Your task to perform on an android device: Is it going to rain tomorrow? Image 0: 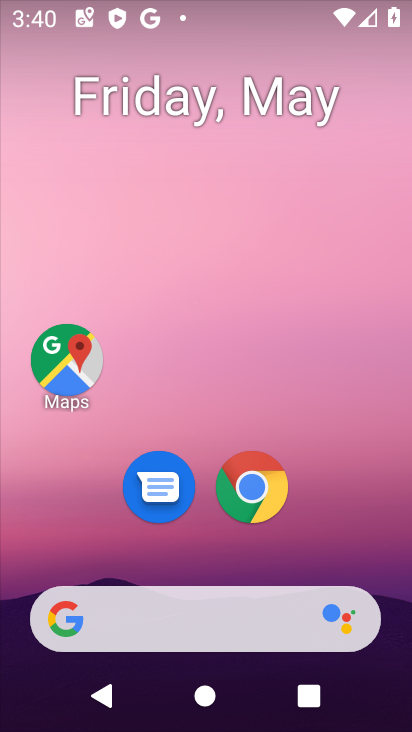
Step 0: drag from (383, 640) to (353, 21)
Your task to perform on an android device: Is it going to rain tomorrow? Image 1: 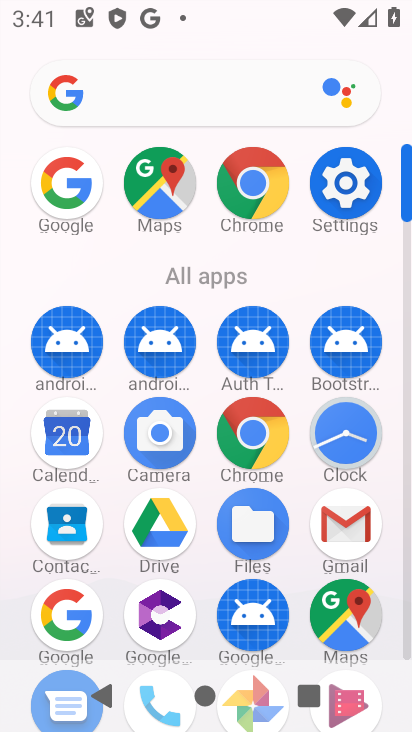
Step 1: click (53, 209)
Your task to perform on an android device: Is it going to rain tomorrow? Image 2: 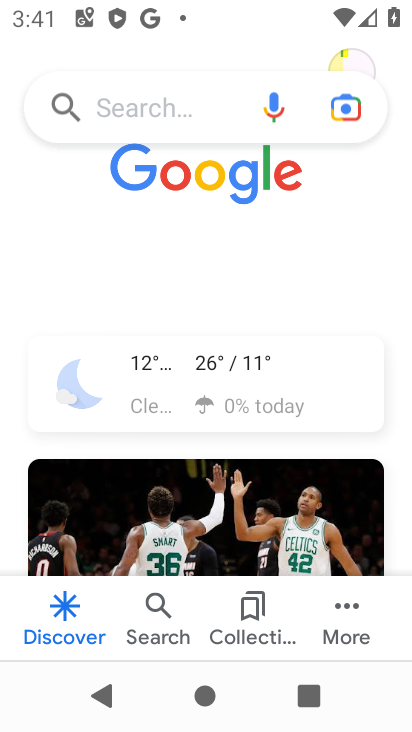
Step 2: click (177, 89)
Your task to perform on an android device: Is it going to rain tomorrow? Image 3: 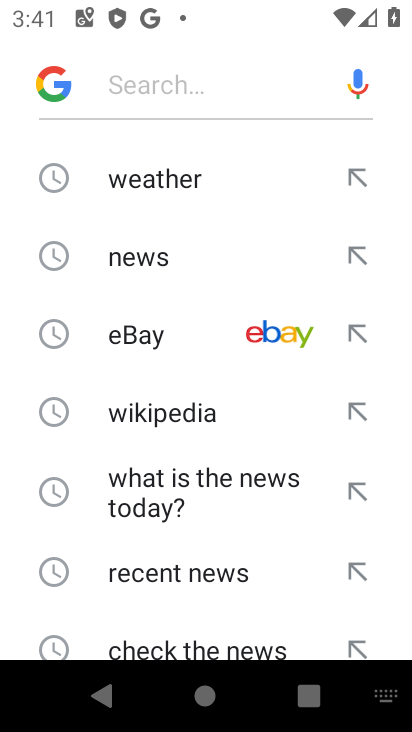
Step 3: drag from (200, 539) to (247, 141)
Your task to perform on an android device: Is it going to rain tomorrow? Image 4: 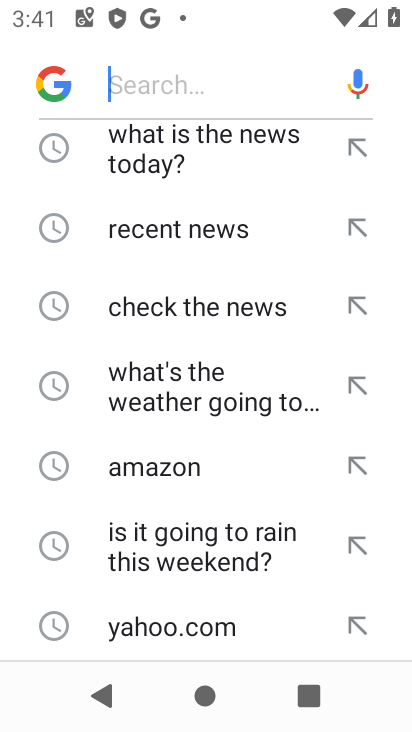
Step 4: drag from (209, 583) to (253, 185)
Your task to perform on an android device: Is it going to rain tomorrow? Image 5: 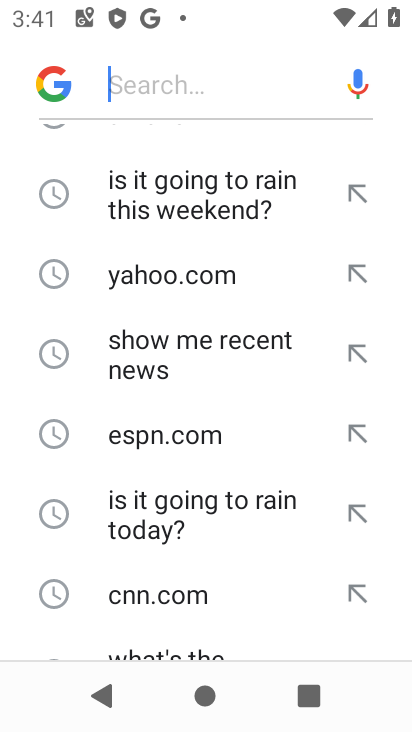
Step 5: drag from (206, 540) to (228, 143)
Your task to perform on an android device: Is it going to rain tomorrow? Image 6: 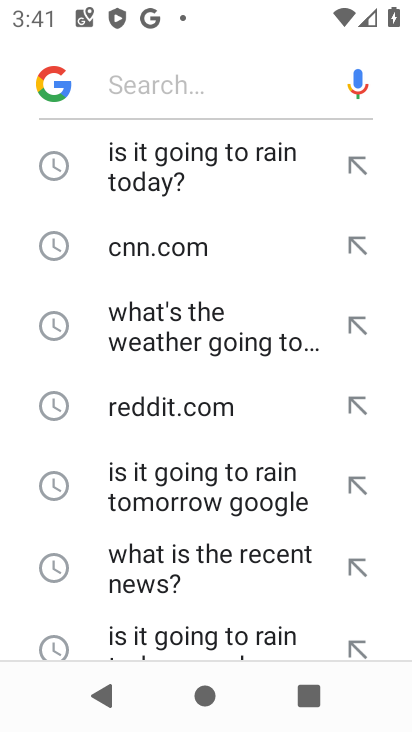
Step 6: drag from (206, 600) to (243, 302)
Your task to perform on an android device: Is it going to rain tomorrow? Image 7: 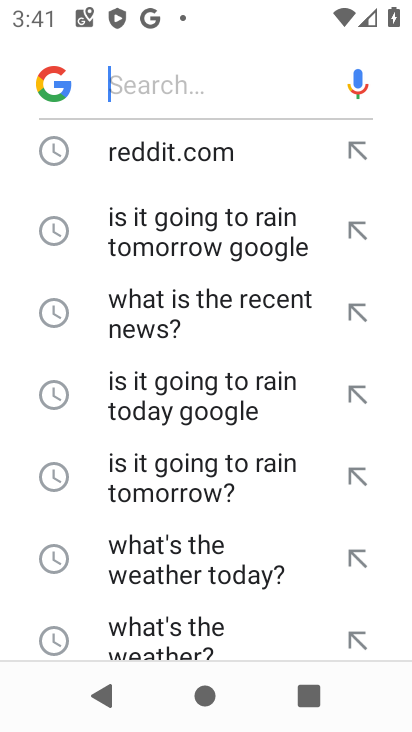
Step 7: click (232, 485)
Your task to perform on an android device: Is it going to rain tomorrow? Image 8: 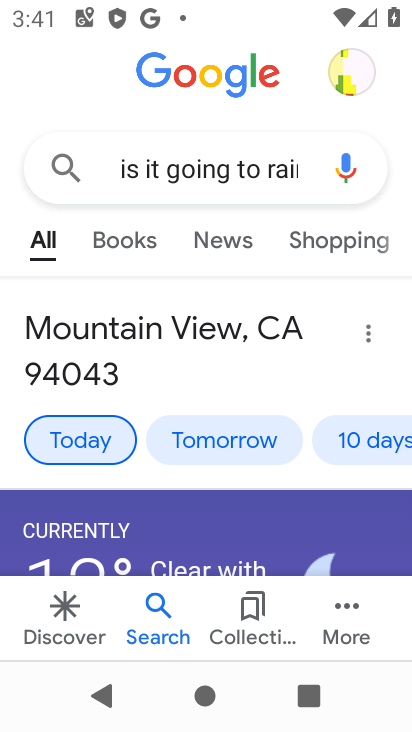
Step 8: task complete